Your task to perform on an android device: When is my next appointment? Image 0: 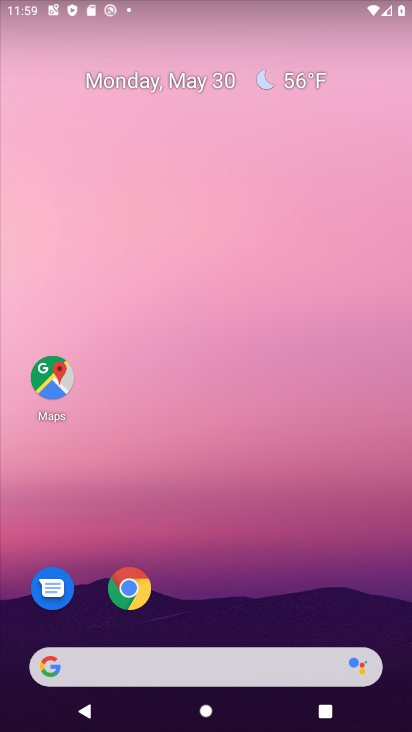
Step 0: drag from (229, 608) to (111, 5)
Your task to perform on an android device: When is my next appointment? Image 1: 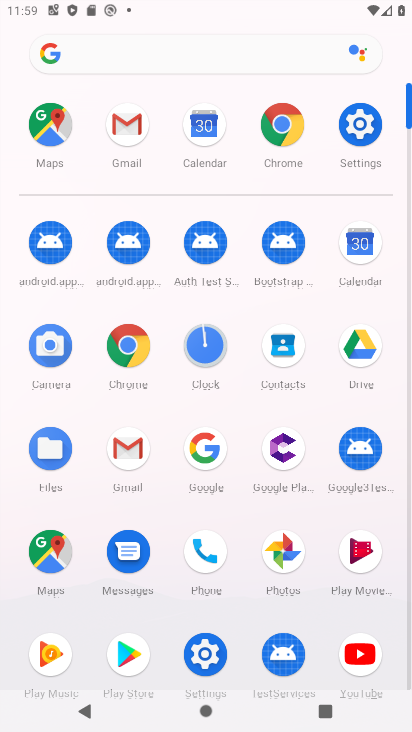
Step 1: click (206, 178)
Your task to perform on an android device: When is my next appointment? Image 2: 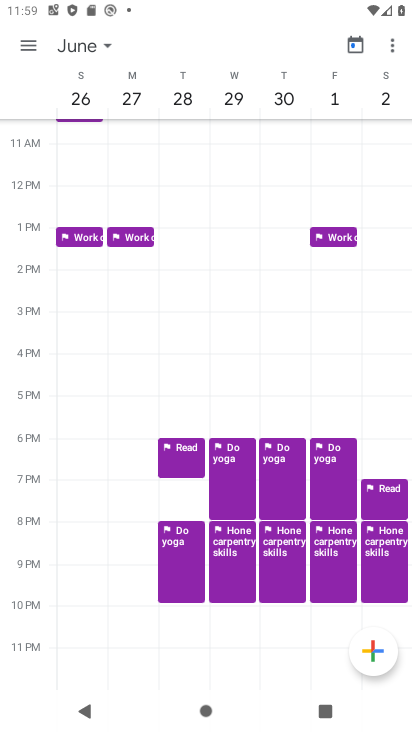
Step 2: click (204, 138)
Your task to perform on an android device: When is my next appointment? Image 3: 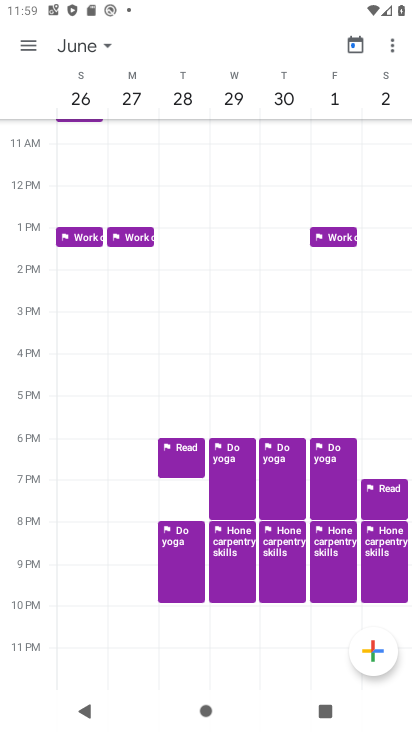
Step 3: click (27, 47)
Your task to perform on an android device: When is my next appointment? Image 4: 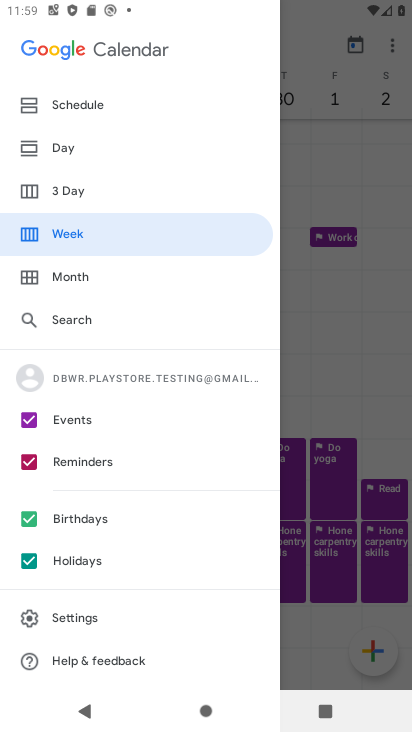
Step 4: click (77, 107)
Your task to perform on an android device: When is my next appointment? Image 5: 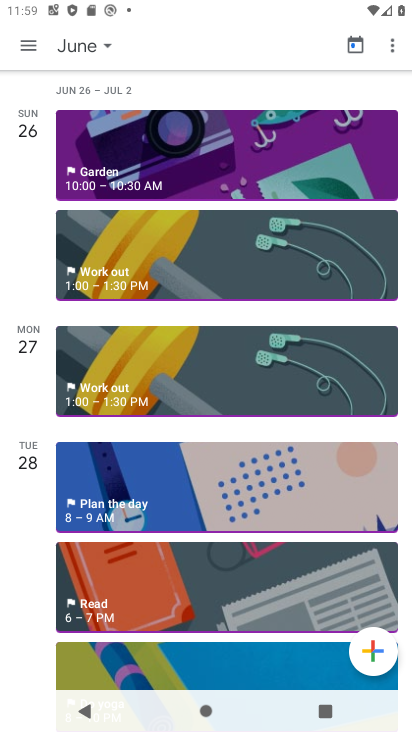
Step 5: task complete